Your task to perform on an android device: What's the weather? Image 0: 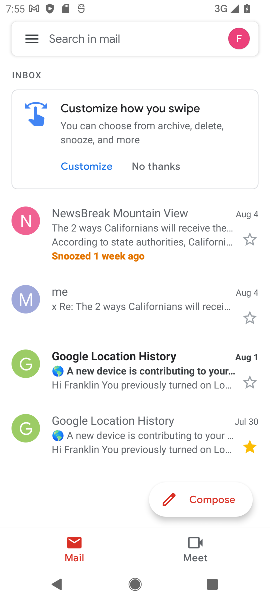
Step 0: press home button
Your task to perform on an android device: What's the weather? Image 1: 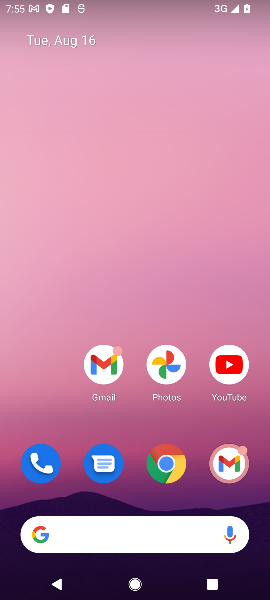
Step 1: click (119, 518)
Your task to perform on an android device: What's the weather? Image 2: 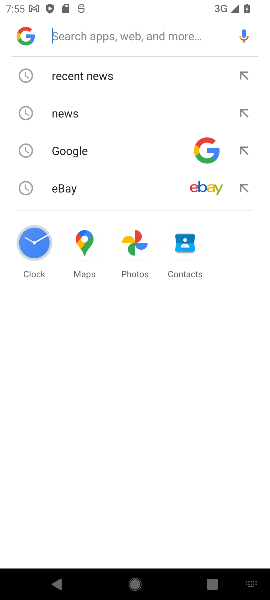
Step 2: type "weather"
Your task to perform on an android device: What's the weather? Image 3: 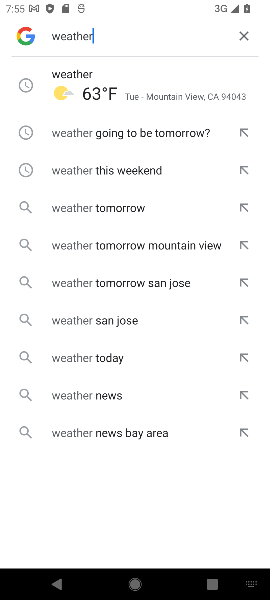
Step 3: click (112, 85)
Your task to perform on an android device: What's the weather? Image 4: 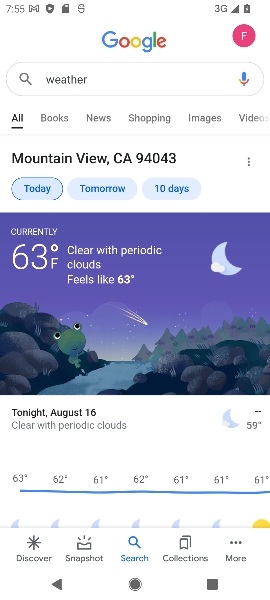
Step 4: task complete